Your task to perform on an android device: Check the weather Image 0: 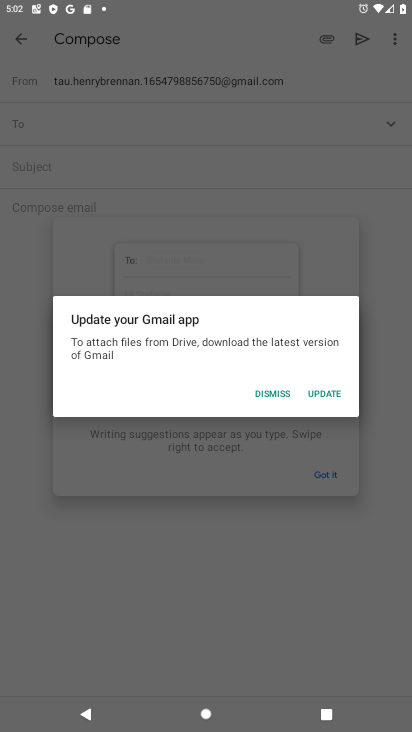
Step 0: press home button
Your task to perform on an android device: Check the weather Image 1: 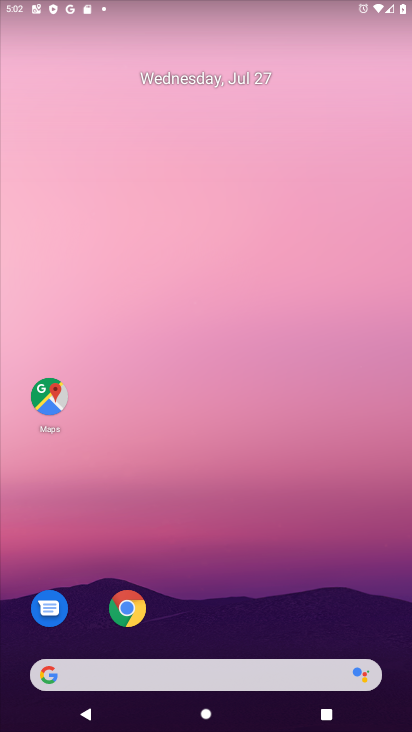
Step 1: click (161, 672)
Your task to perform on an android device: Check the weather Image 2: 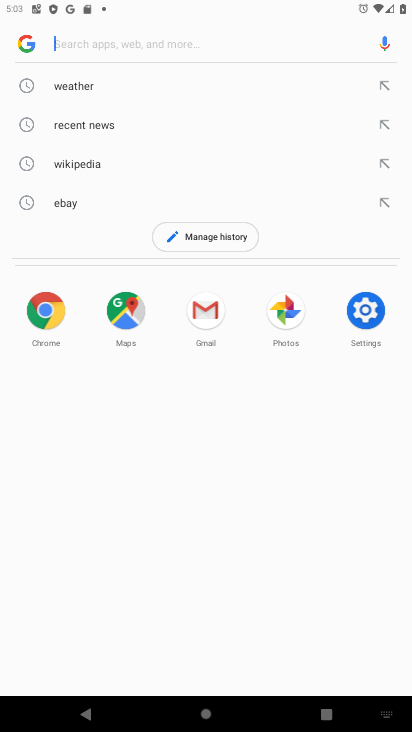
Step 2: click (97, 98)
Your task to perform on an android device: Check the weather Image 3: 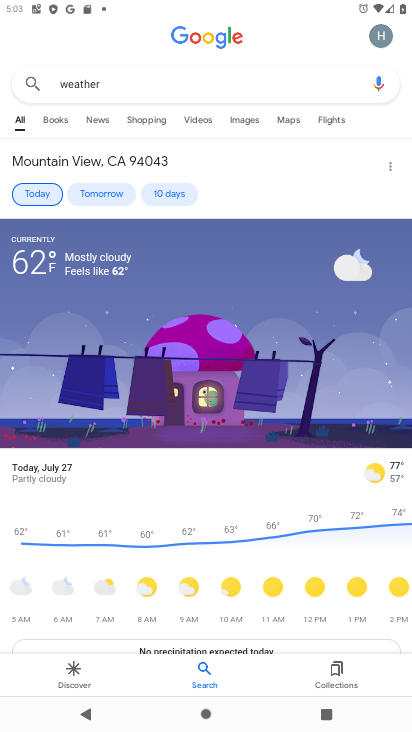
Step 3: task complete